Your task to perform on an android device: turn pop-ups on in chrome Image 0: 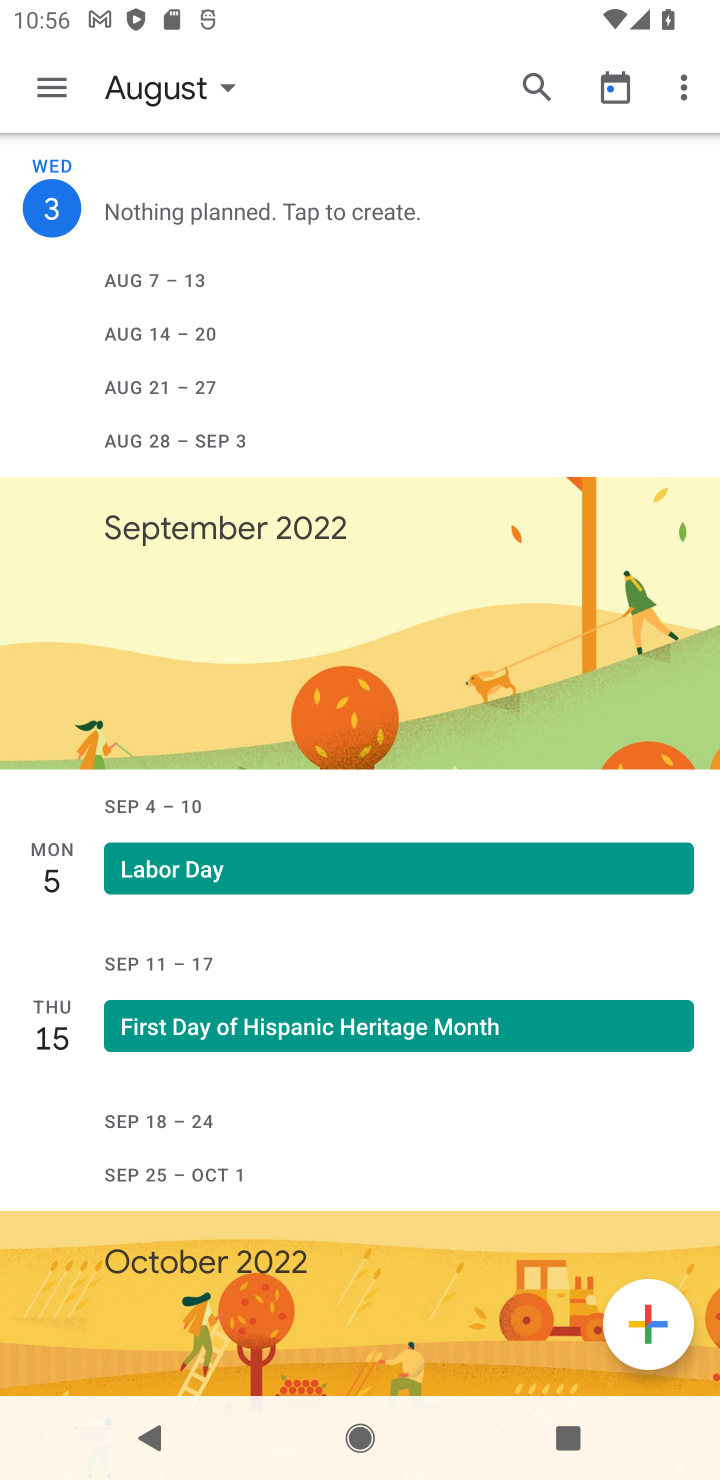
Step 0: press home button
Your task to perform on an android device: turn pop-ups on in chrome Image 1: 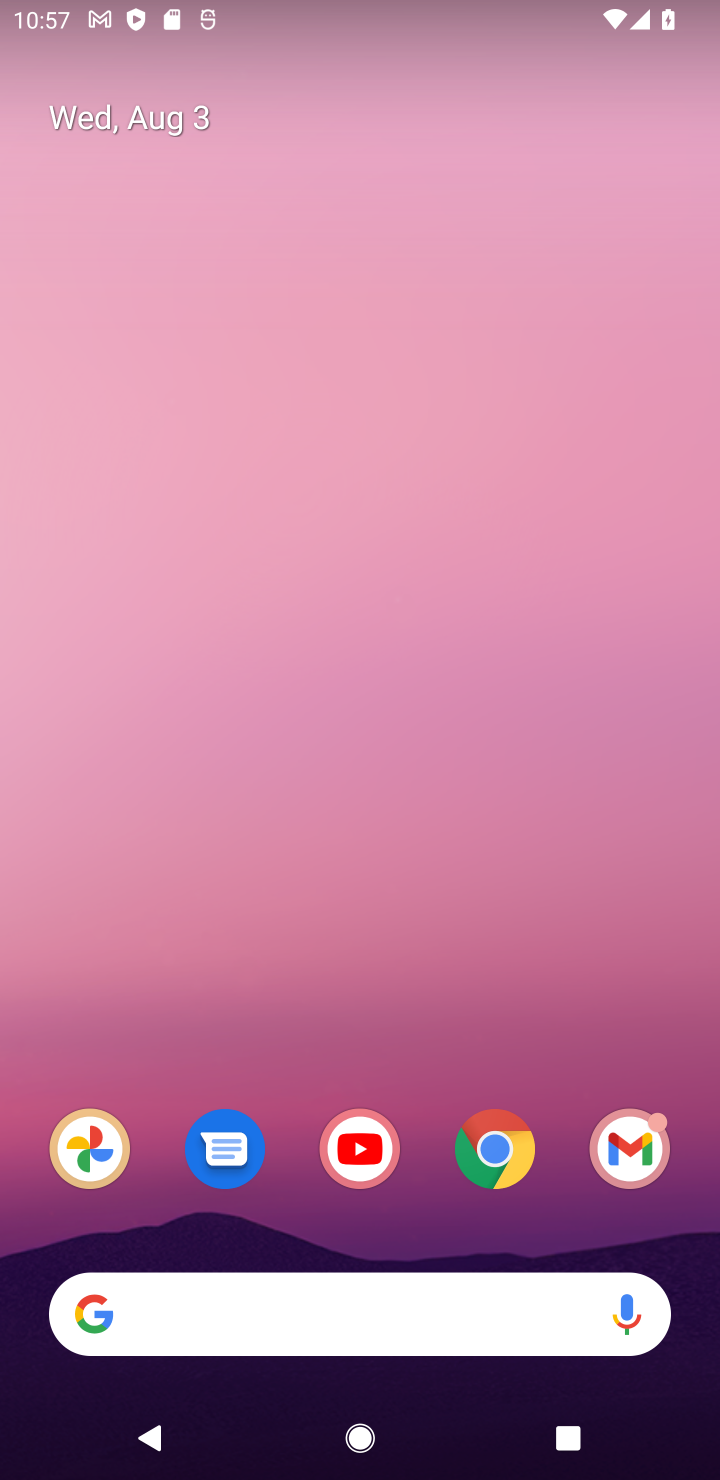
Step 1: click (474, 1143)
Your task to perform on an android device: turn pop-ups on in chrome Image 2: 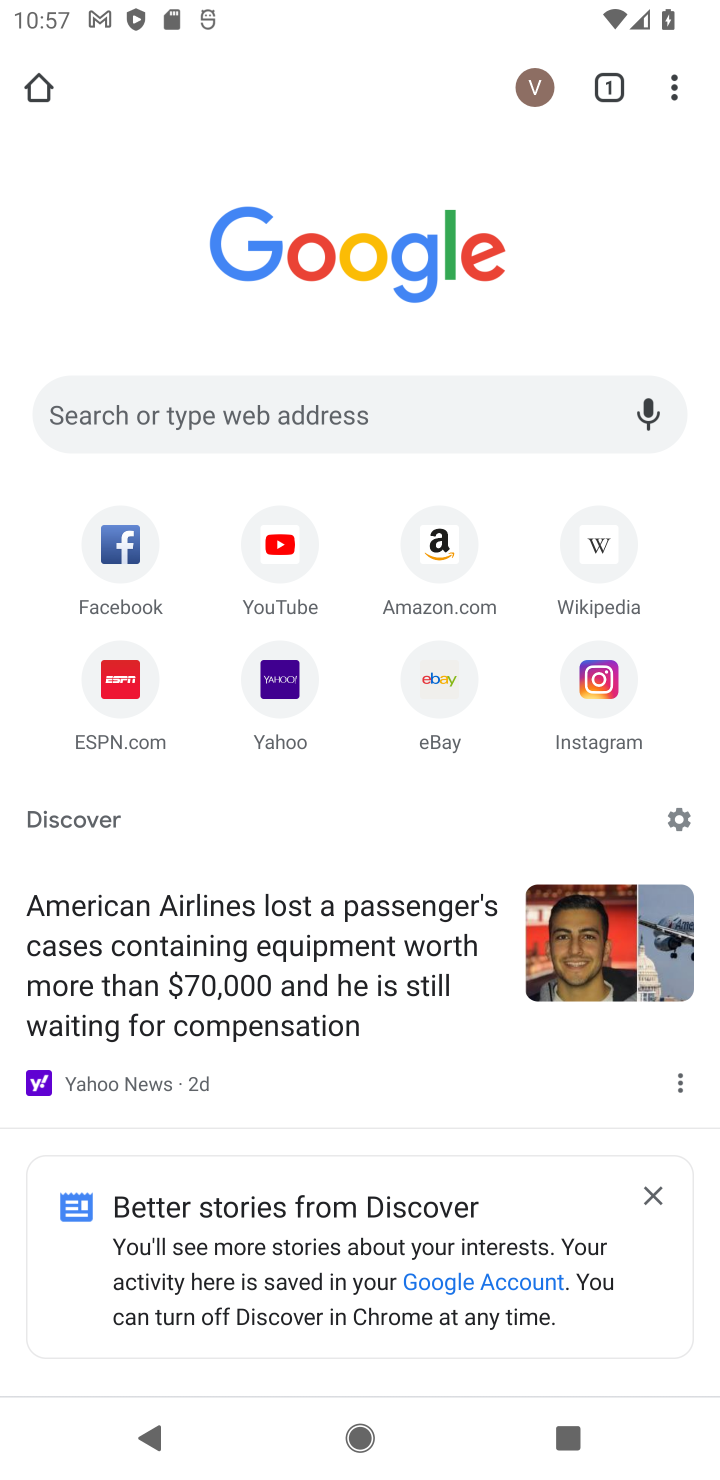
Step 2: click (690, 83)
Your task to perform on an android device: turn pop-ups on in chrome Image 3: 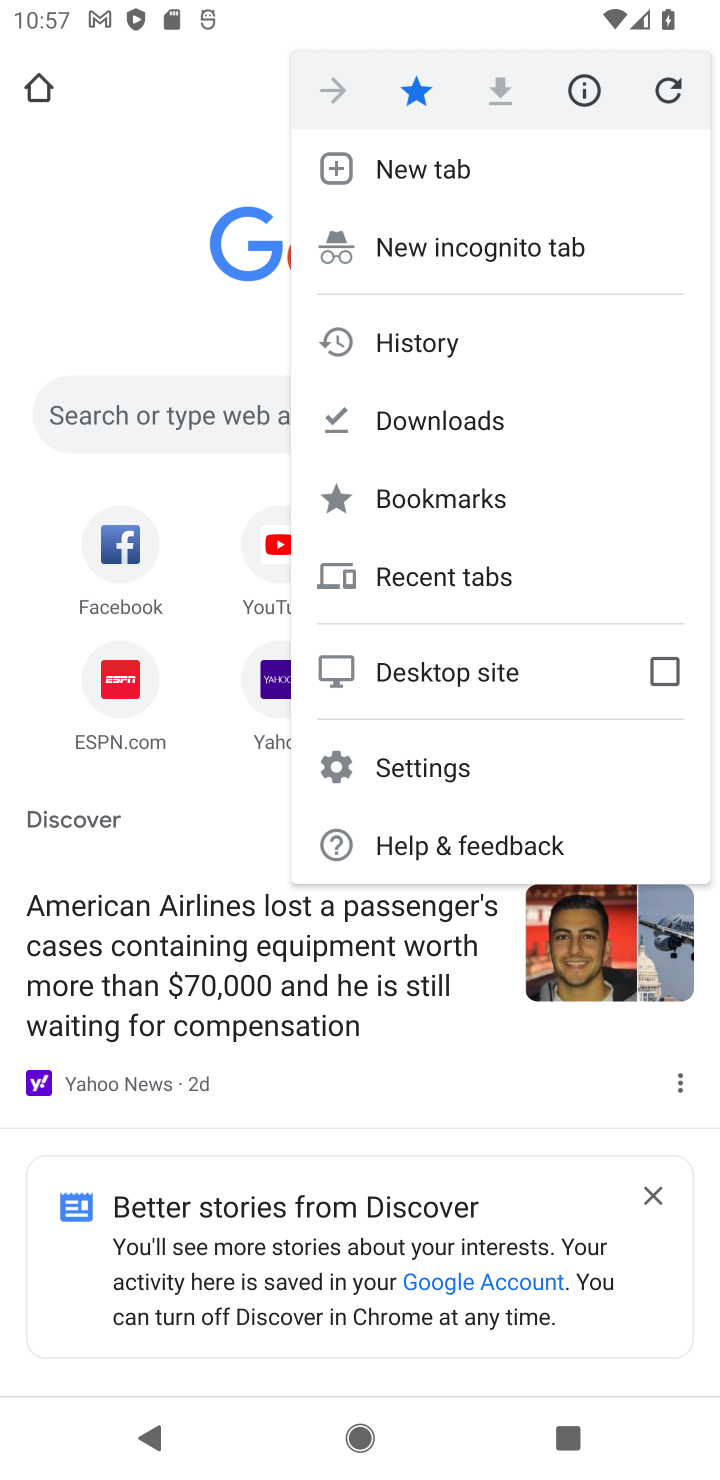
Step 3: click (511, 773)
Your task to perform on an android device: turn pop-ups on in chrome Image 4: 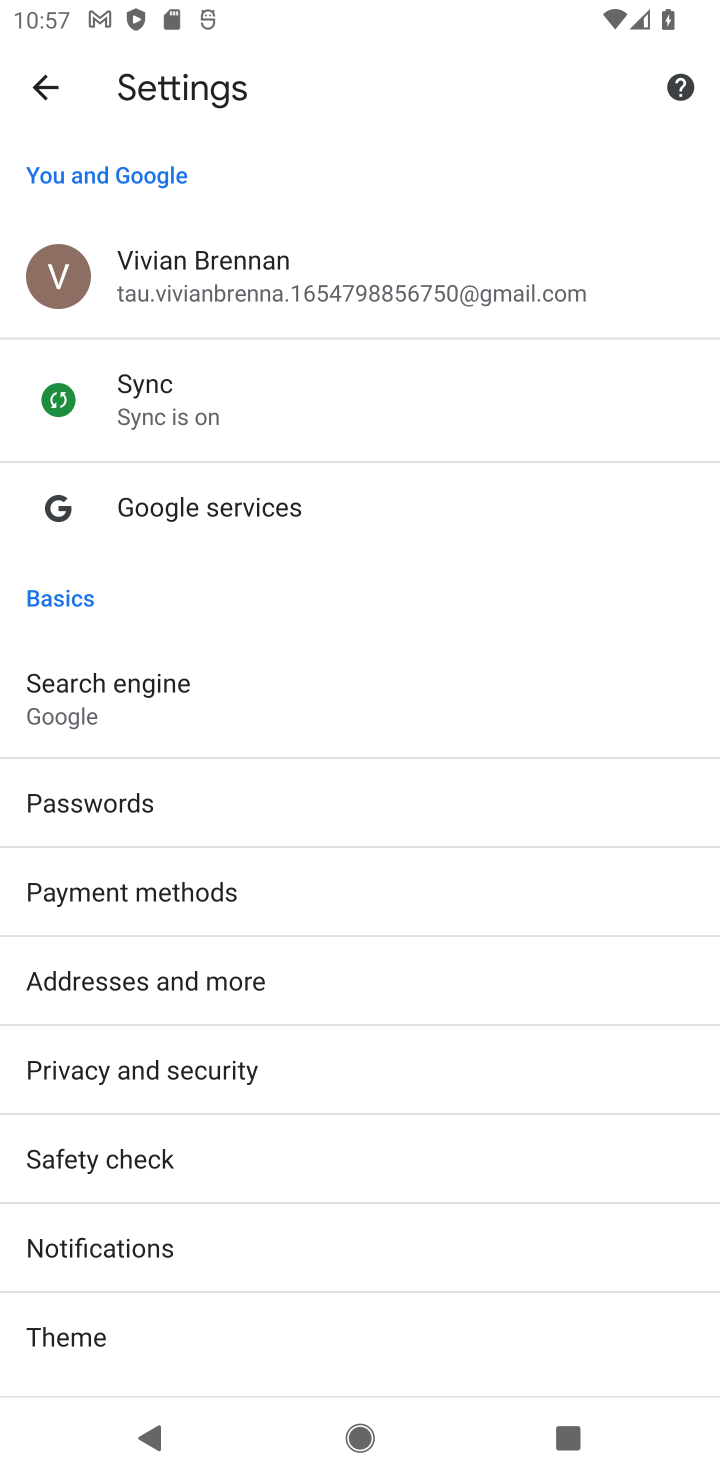
Step 4: drag from (295, 1297) to (266, 519)
Your task to perform on an android device: turn pop-ups on in chrome Image 5: 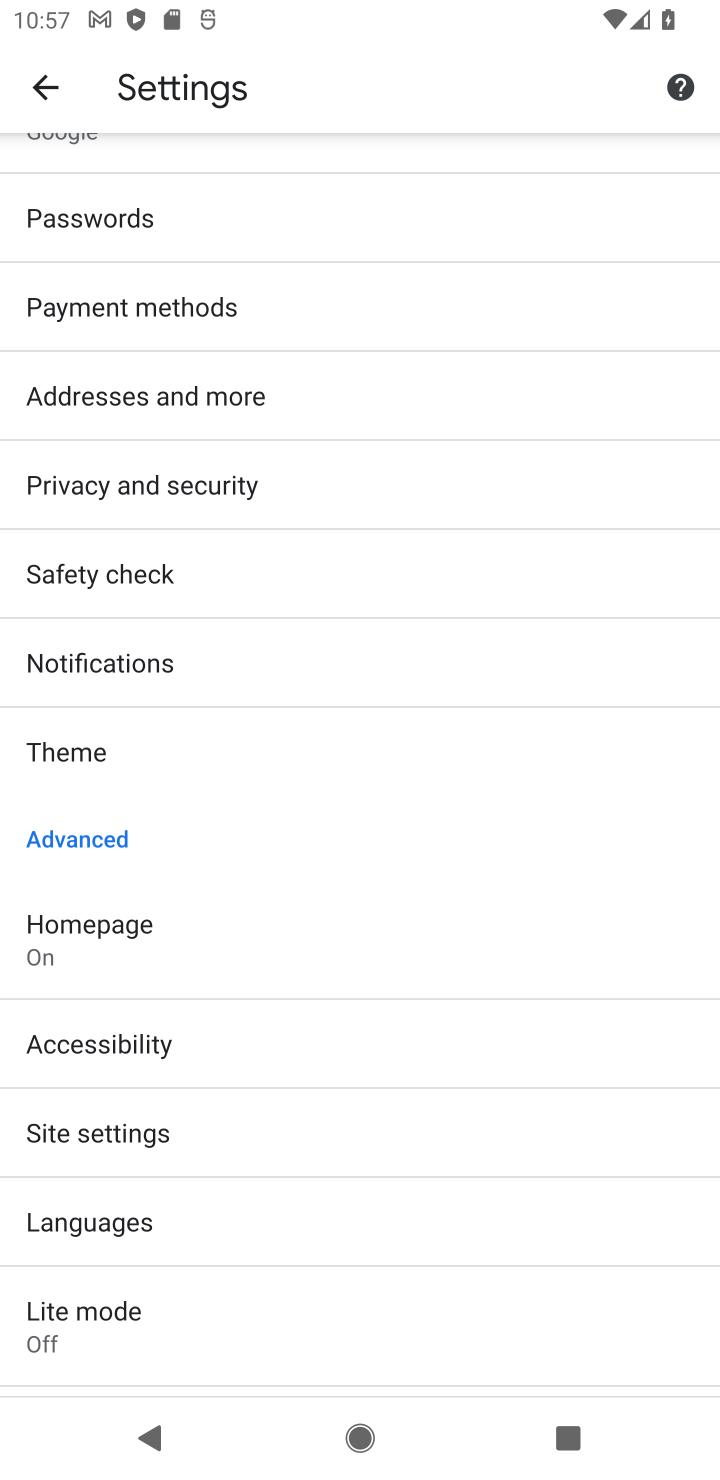
Step 5: click (218, 1131)
Your task to perform on an android device: turn pop-ups on in chrome Image 6: 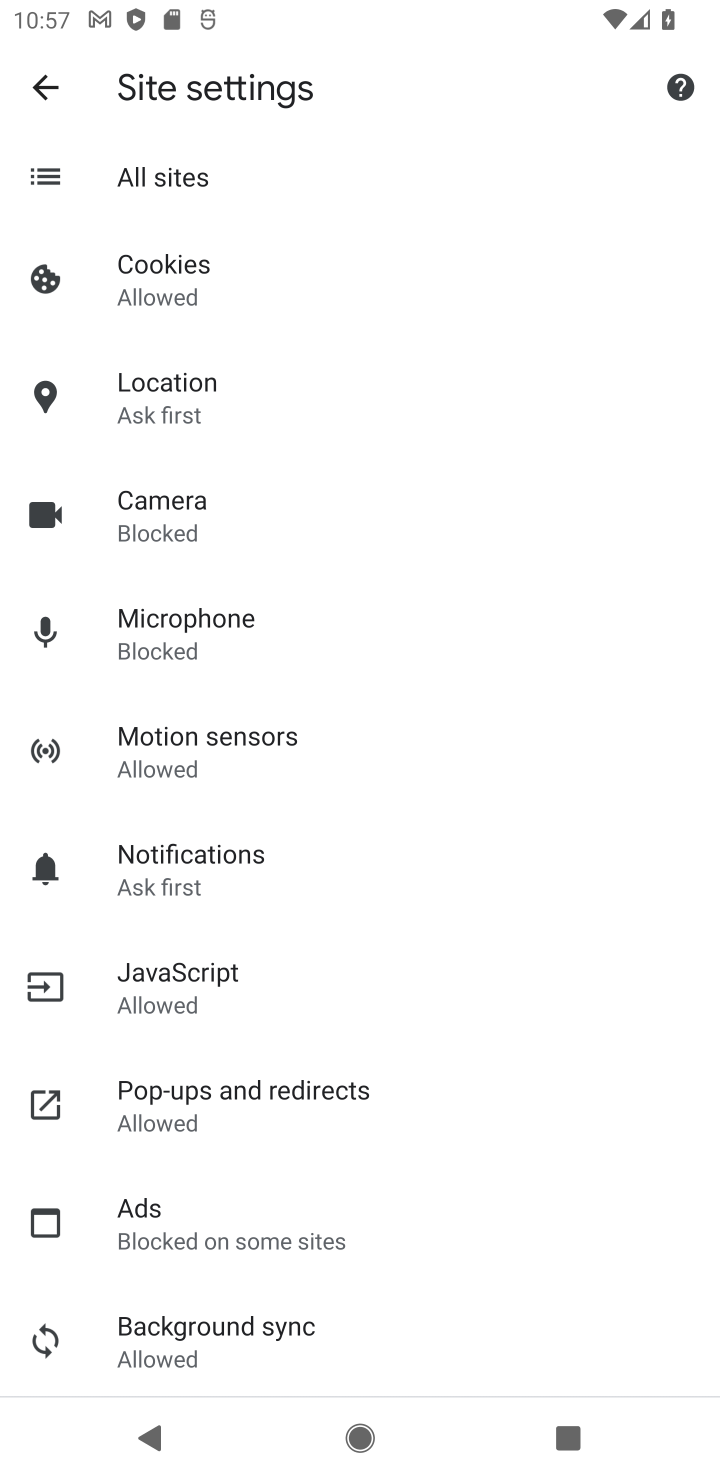
Step 6: click (468, 1115)
Your task to perform on an android device: turn pop-ups on in chrome Image 7: 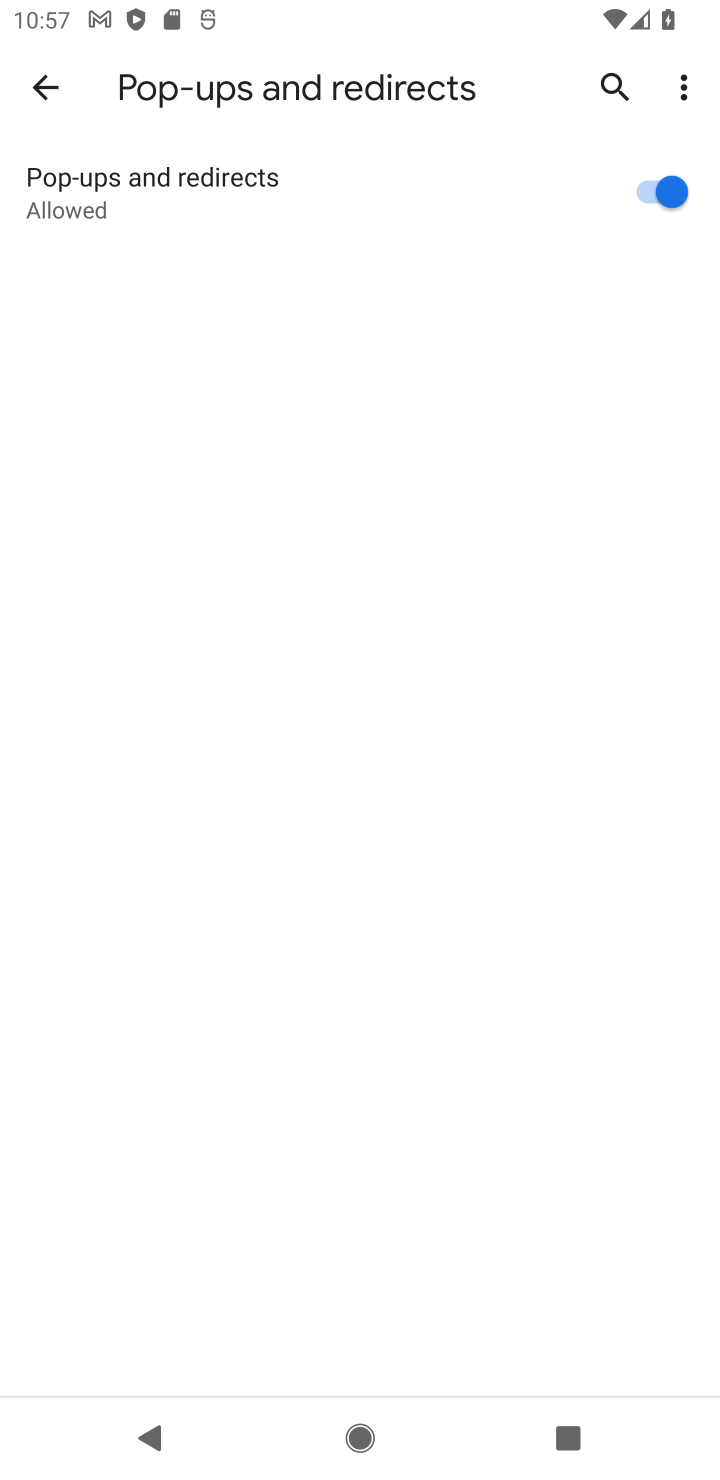
Step 7: task complete